Your task to perform on an android device: turn on javascript in the chrome app Image 0: 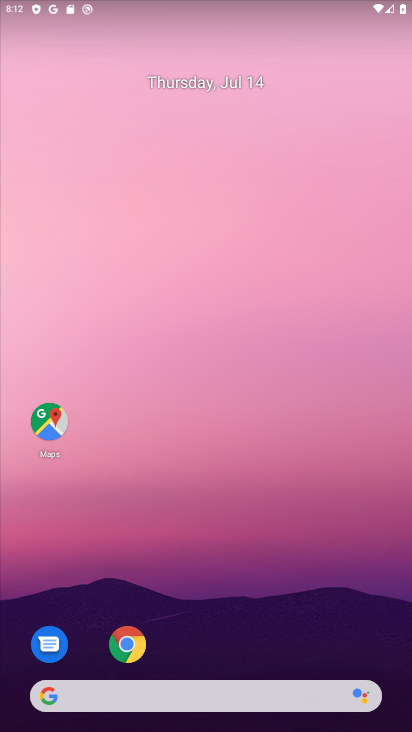
Step 0: drag from (178, 666) to (300, 102)
Your task to perform on an android device: turn on javascript in the chrome app Image 1: 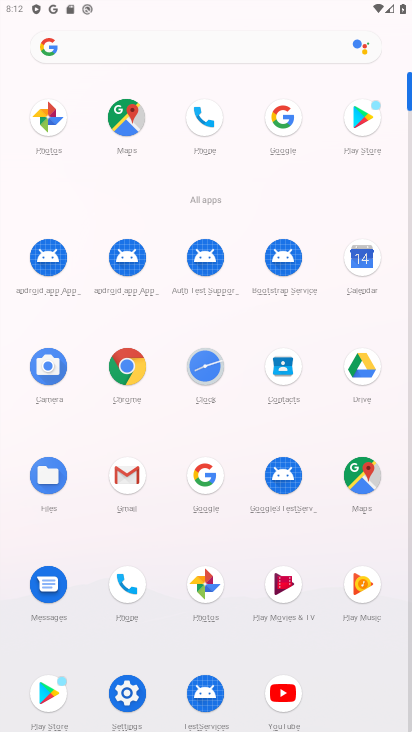
Step 1: click (133, 362)
Your task to perform on an android device: turn on javascript in the chrome app Image 2: 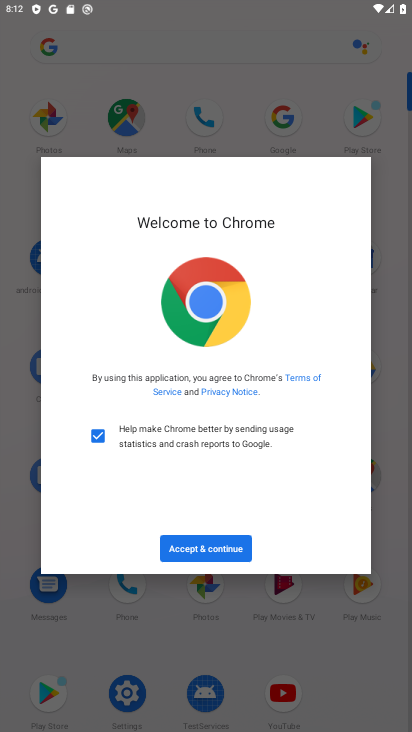
Step 2: click (223, 552)
Your task to perform on an android device: turn on javascript in the chrome app Image 3: 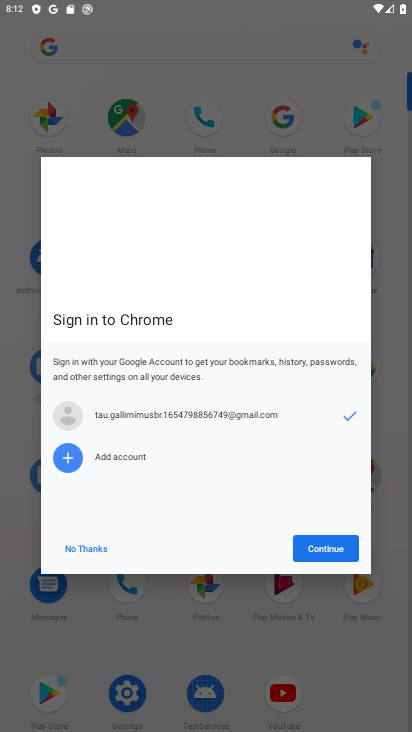
Step 3: click (345, 543)
Your task to perform on an android device: turn on javascript in the chrome app Image 4: 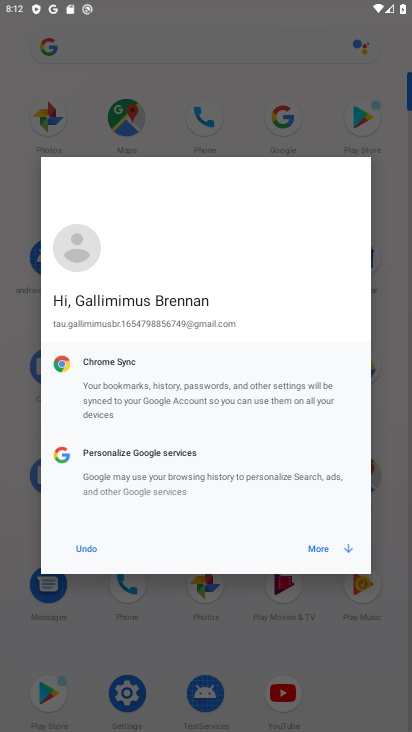
Step 4: click (329, 543)
Your task to perform on an android device: turn on javascript in the chrome app Image 5: 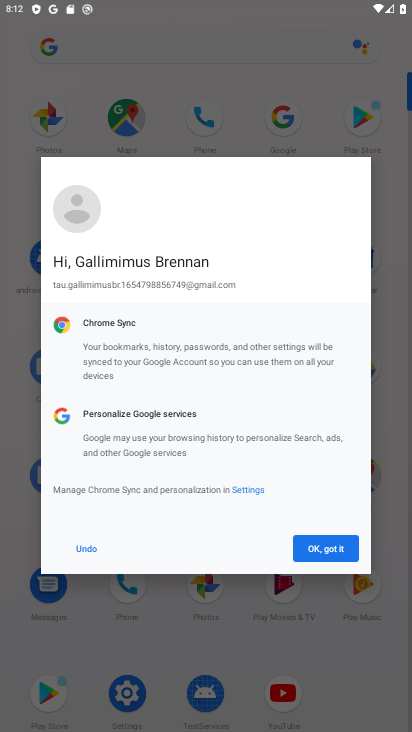
Step 5: click (328, 543)
Your task to perform on an android device: turn on javascript in the chrome app Image 6: 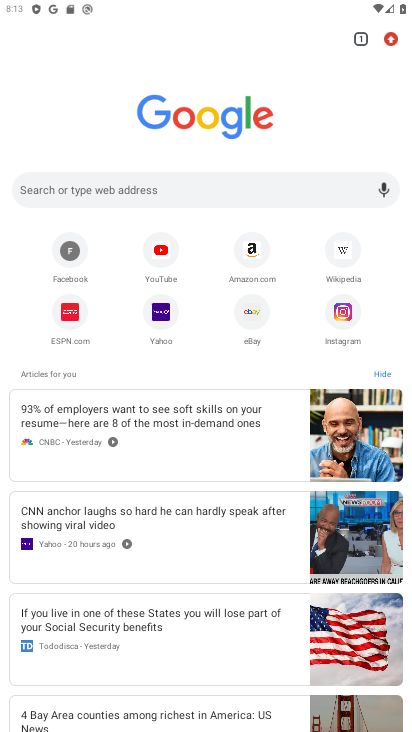
Step 6: drag from (396, 35) to (276, 365)
Your task to perform on an android device: turn on javascript in the chrome app Image 7: 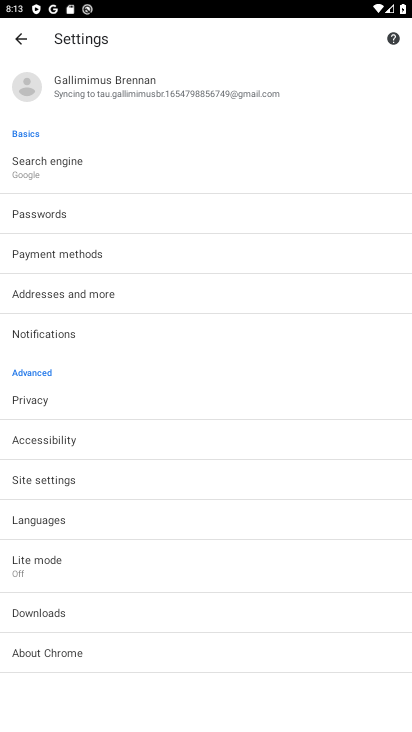
Step 7: click (99, 487)
Your task to perform on an android device: turn on javascript in the chrome app Image 8: 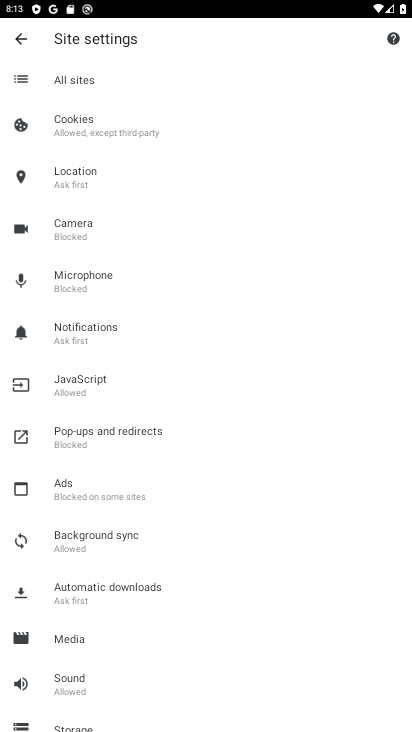
Step 8: task complete